Your task to perform on an android device: search for starred emails in the gmail app Image 0: 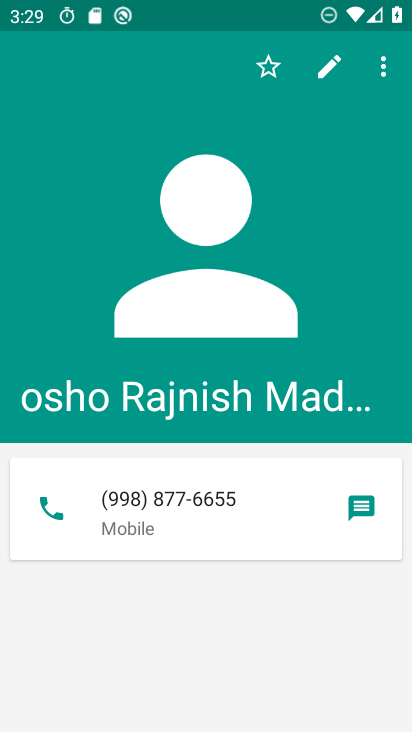
Step 0: press home button
Your task to perform on an android device: search for starred emails in the gmail app Image 1: 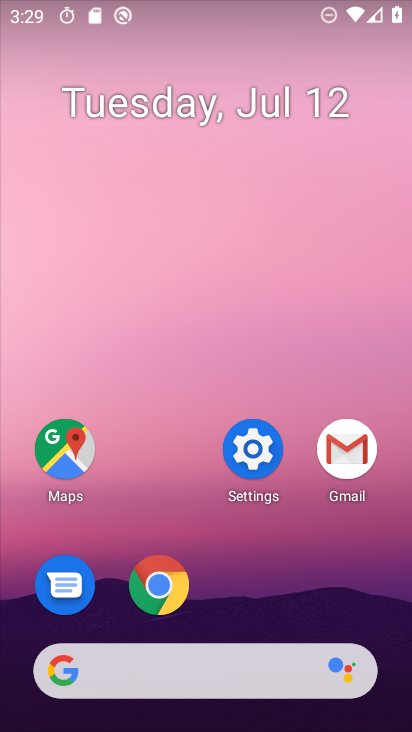
Step 1: click (354, 464)
Your task to perform on an android device: search for starred emails in the gmail app Image 2: 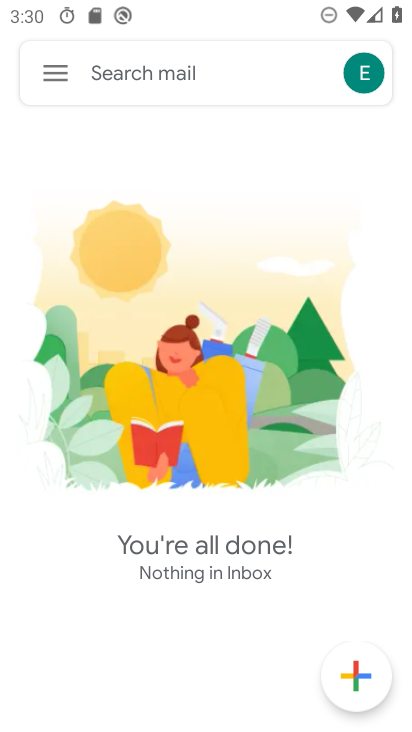
Step 2: task complete